Your task to perform on an android device: change your default location settings in chrome Image 0: 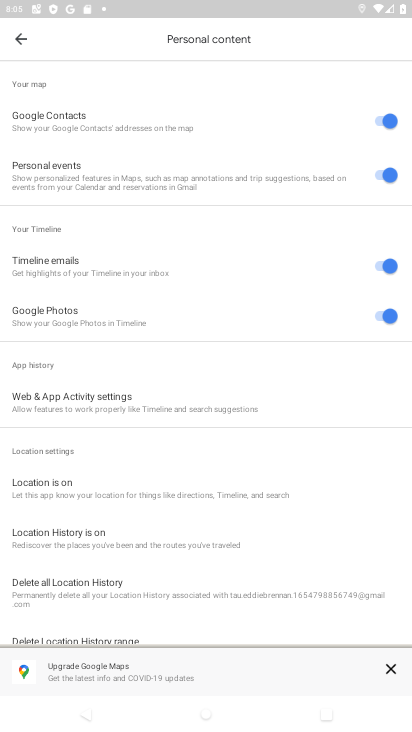
Step 0: press home button
Your task to perform on an android device: change your default location settings in chrome Image 1: 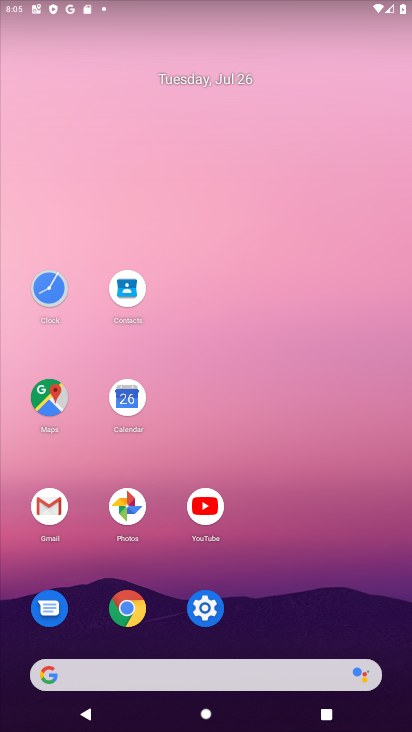
Step 1: click (127, 610)
Your task to perform on an android device: change your default location settings in chrome Image 2: 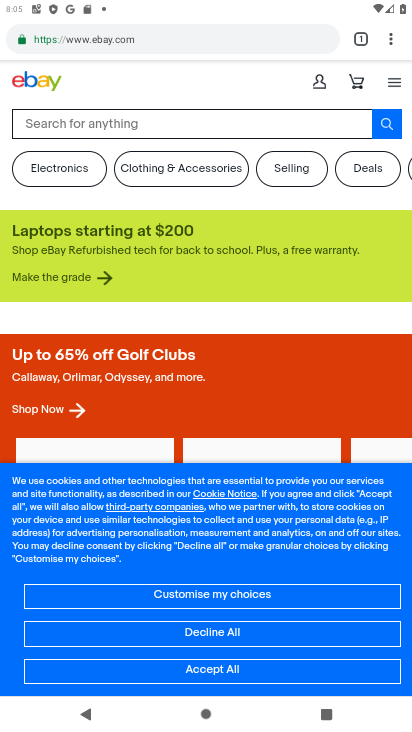
Step 2: click (392, 38)
Your task to perform on an android device: change your default location settings in chrome Image 3: 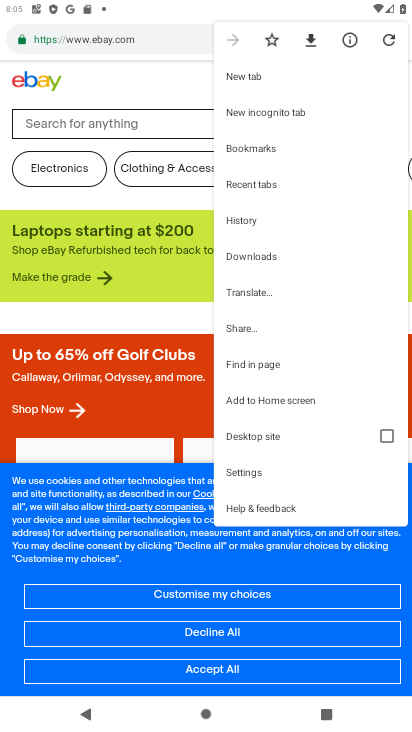
Step 3: click (245, 471)
Your task to perform on an android device: change your default location settings in chrome Image 4: 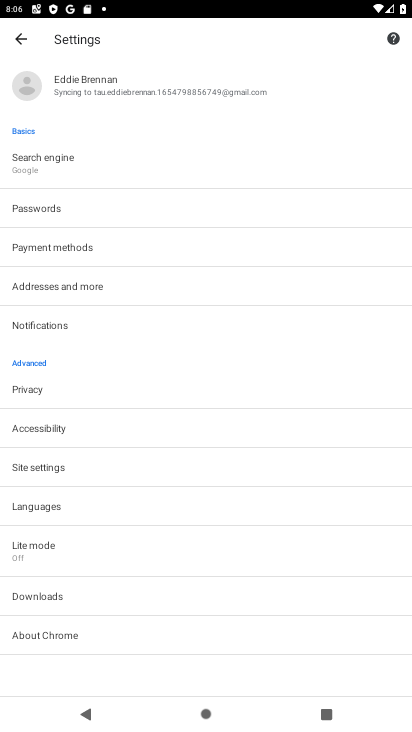
Step 4: click (46, 467)
Your task to perform on an android device: change your default location settings in chrome Image 5: 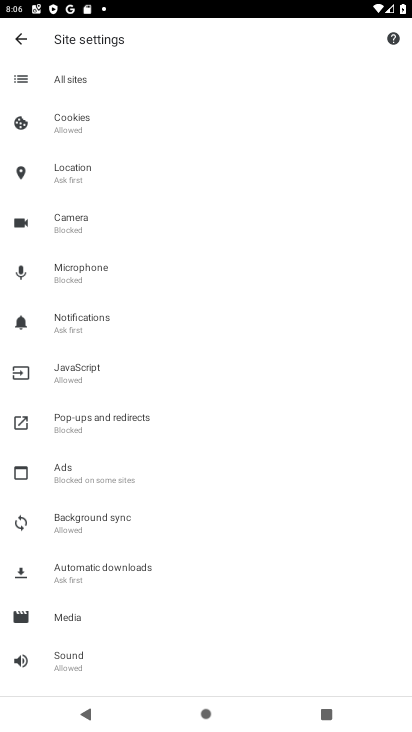
Step 5: click (82, 164)
Your task to perform on an android device: change your default location settings in chrome Image 6: 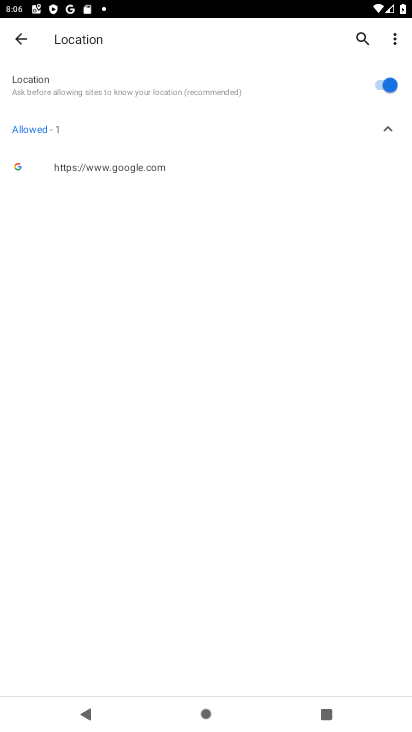
Step 6: click (389, 81)
Your task to perform on an android device: change your default location settings in chrome Image 7: 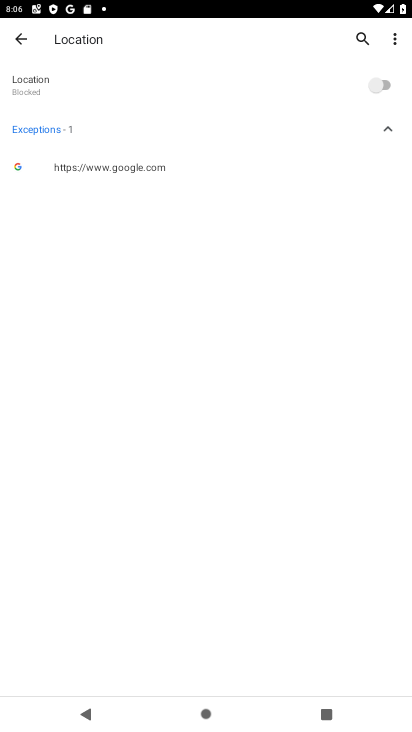
Step 7: task complete